Your task to perform on an android device: Go to Yahoo.com Image 0: 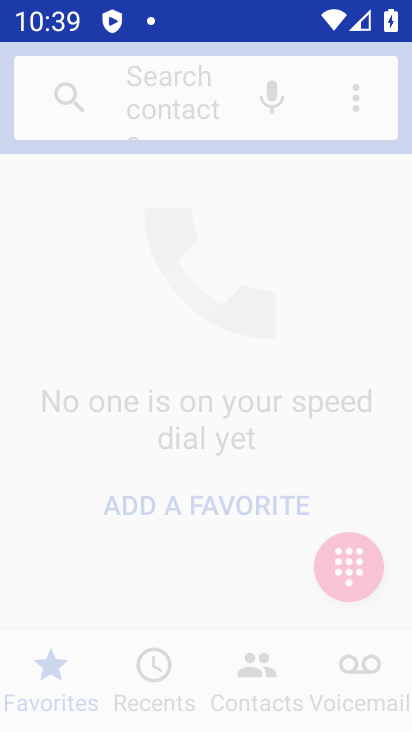
Step 0: drag from (185, 624) to (298, 261)
Your task to perform on an android device: Go to Yahoo.com Image 1: 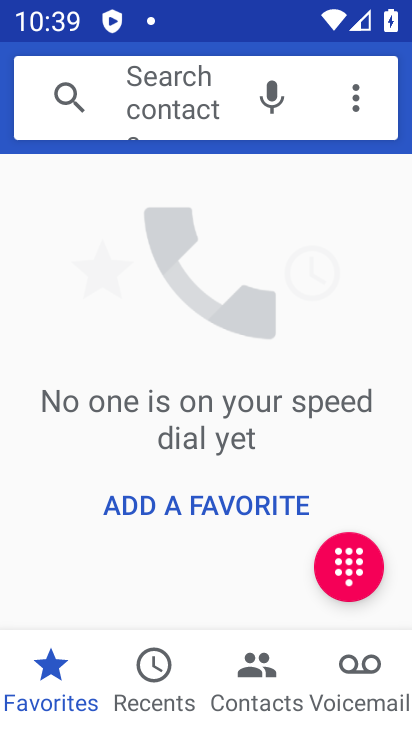
Step 1: press home button
Your task to perform on an android device: Go to Yahoo.com Image 2: 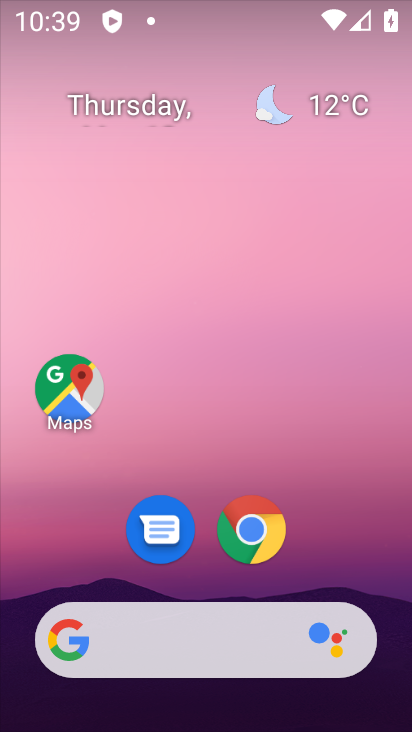
Step 2: drag from (188, 621) to (304, 245)
Your task to perform on an android device: Go to Yahoo.com Image 3: 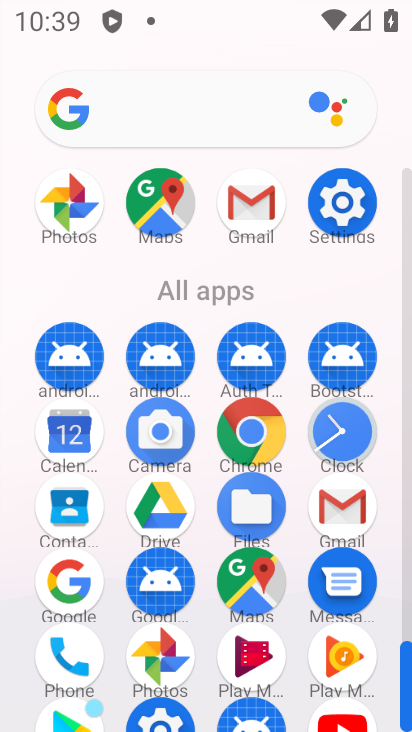
Step 3: click (247, 430)
Your task to perform on an android device: Go to Yahoo.com Image 4: 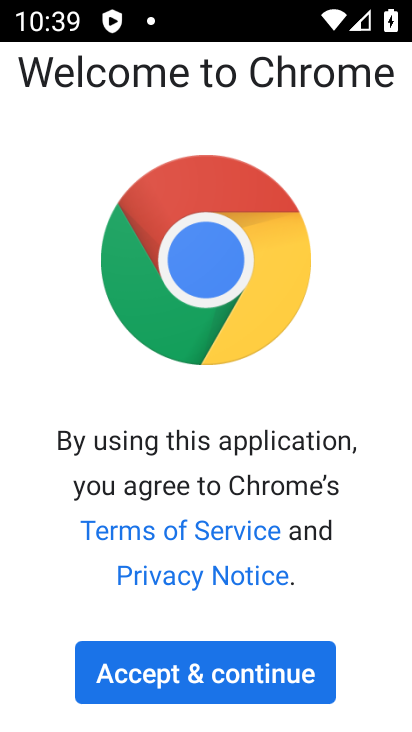
Step 4: click (183, 678)
Your task to perform on an android device: Go to Yahoo.com Image 5: 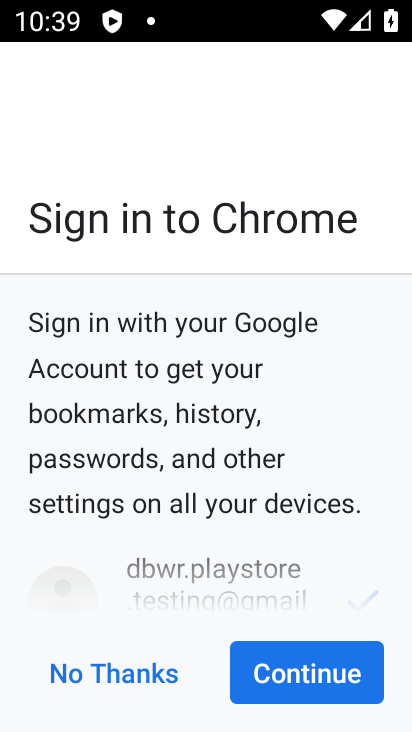
Step 5: click (299, 680)
Your task to perform on an android device: Go to Yahoo.com Image 6: 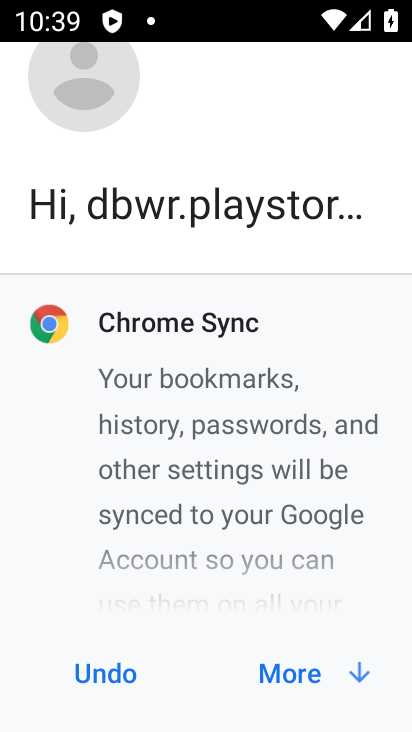
Step 6: click (288, 676)
Your task to perform on an android device: Go to Yahoo.com Image 7: 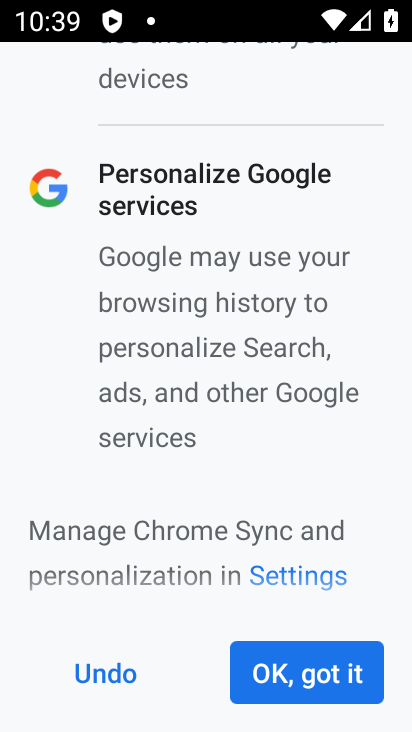
Step 7: click (287, 676)
Your task to perform on an android device: Go to Yahoo.com Image 8: 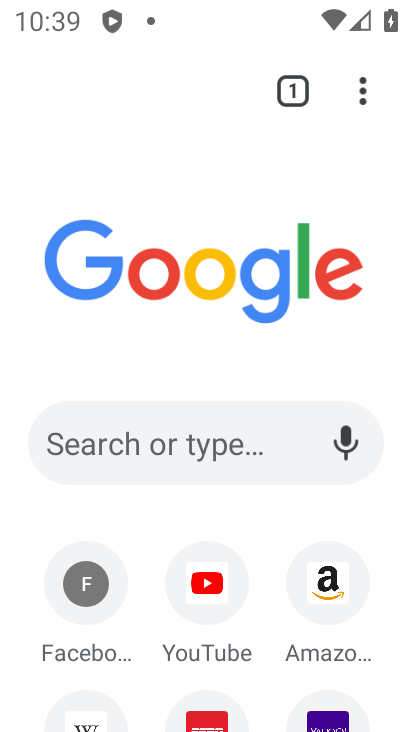
Step 8: drag from (266, 510) to (322, 242)
Your task to perform on an android device: Go to Yahoo.com Image 9: 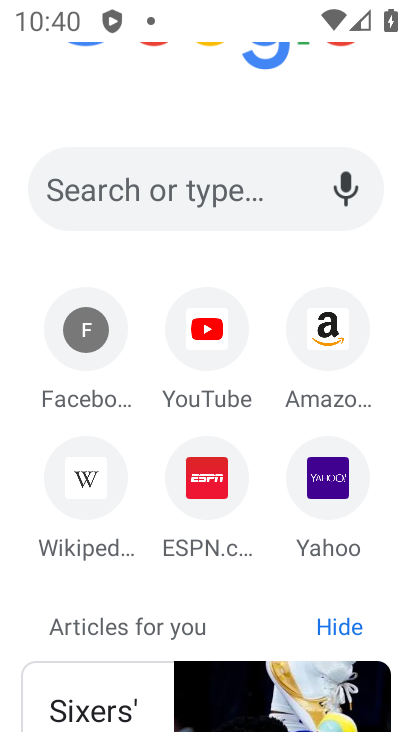
Step 9: click (334, 480)
Your task to perform on an android device: Go to Yahoo.com Image 10: 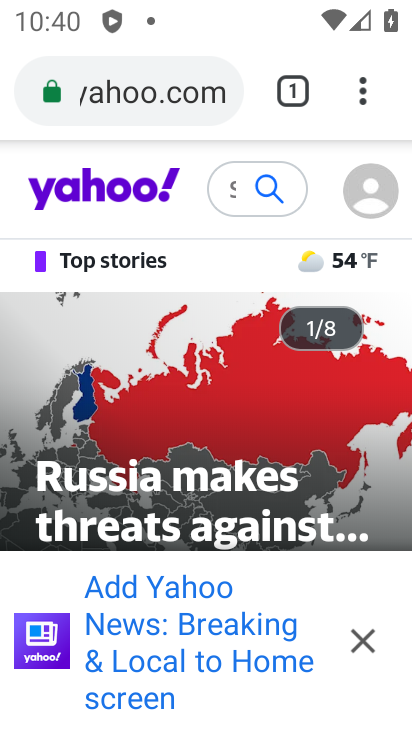
Step 10: task complete